Your task to perform on an android device: Open network settings Image 0: 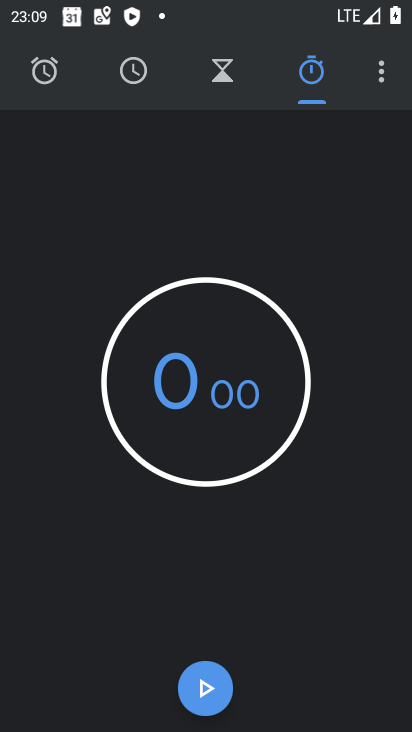
Step 0: press home button
Your task to perform on an android device: Open network settings Image 1: 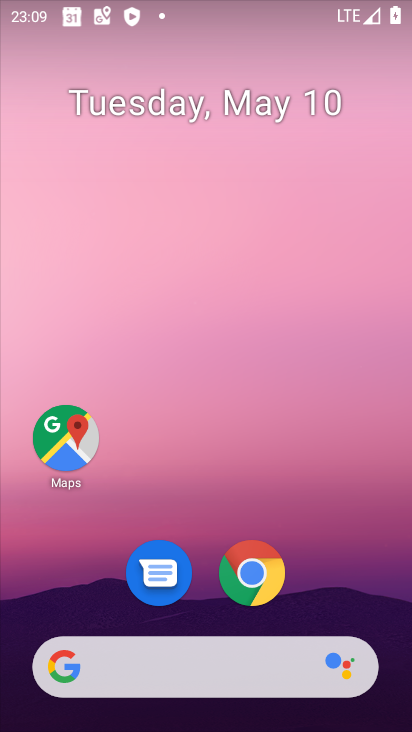
Step 1: drag from (340, 535) to (198, 52)
Your task to perform on an android device: Open network settings Image 2: 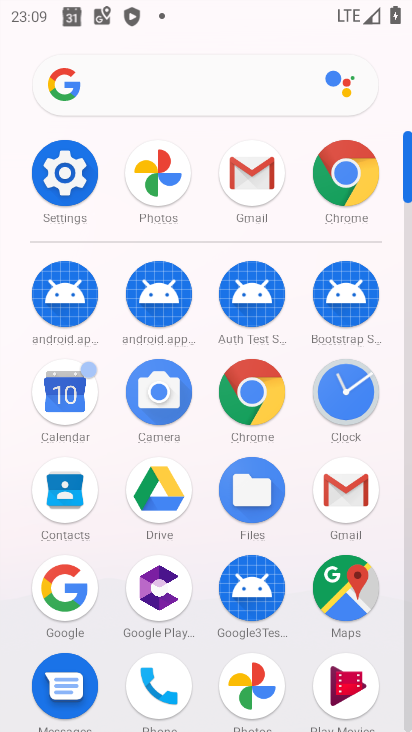
Step 2: click (64, 169)
Your task to perform on an android device: Open network settings Image 3: 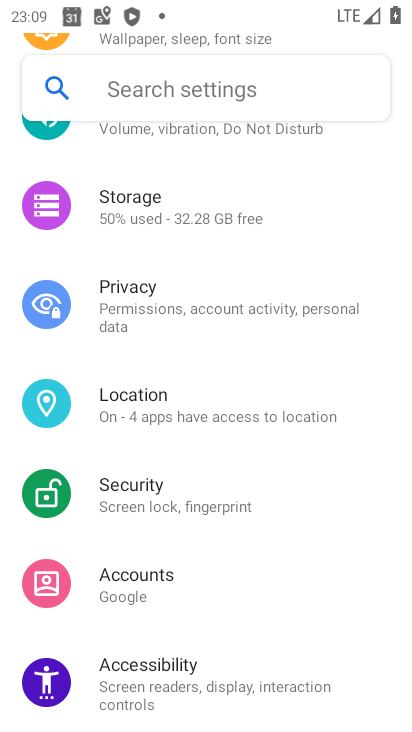
Step 3: drag from (222, 260) to (204, 707)
Your task to perform on an android device: Open network settings Image 4: 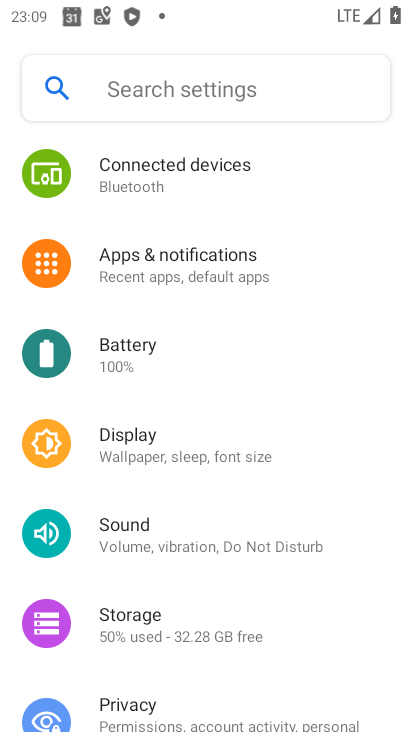
Step 4: drag from (281, 212) to (199, 669)
Your task to perform on an android device: Open network settings Image 5: 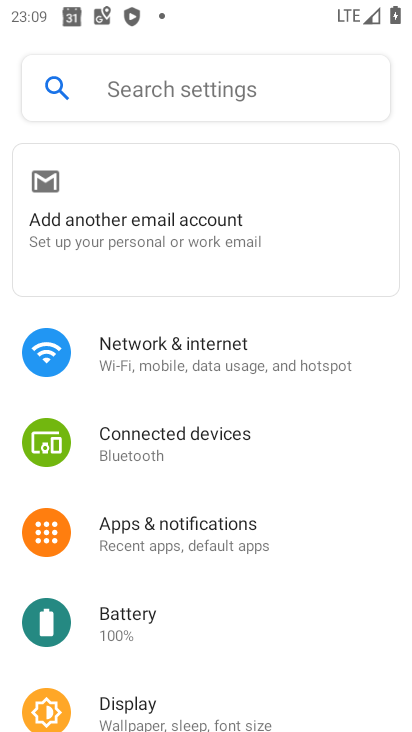
Step 5: click (162, 283)
Your task to perform on an android device: Open network settings Image 6: 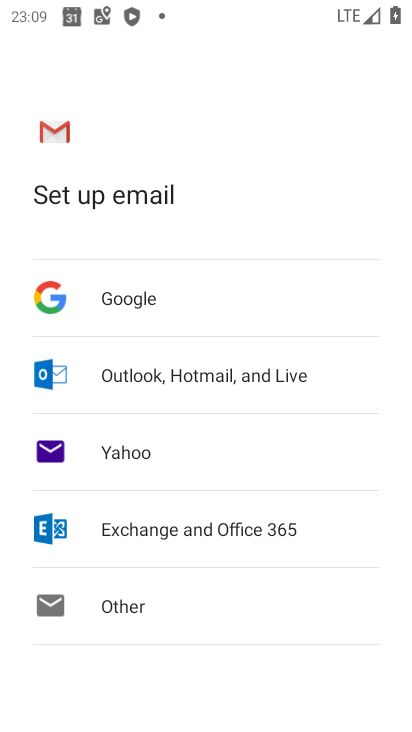
Step 6: press back button
Your task to perform on an android device: Open network settings Image 7: 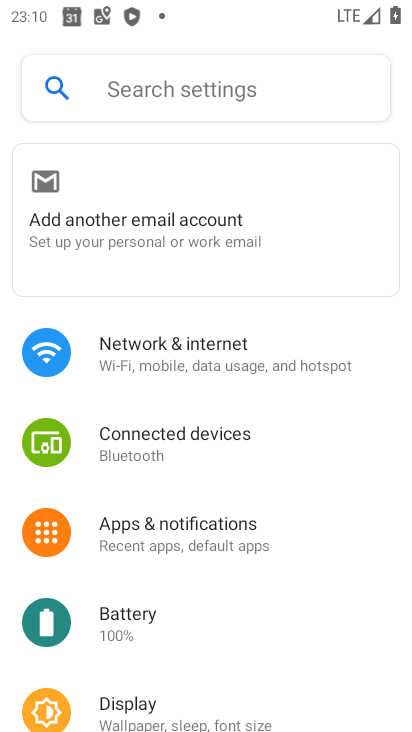
Step 7: click (204, 349)
Your task to perform on an android device: Open network settings Image 8: 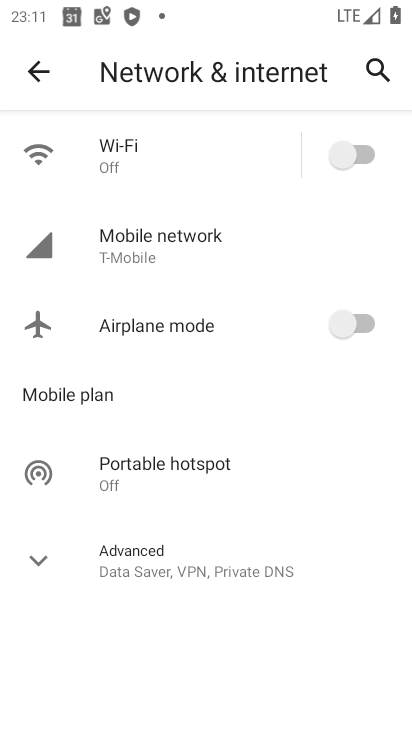
Step 8: task complete